Your task to perform on an android device: Go to eBay Image 0: 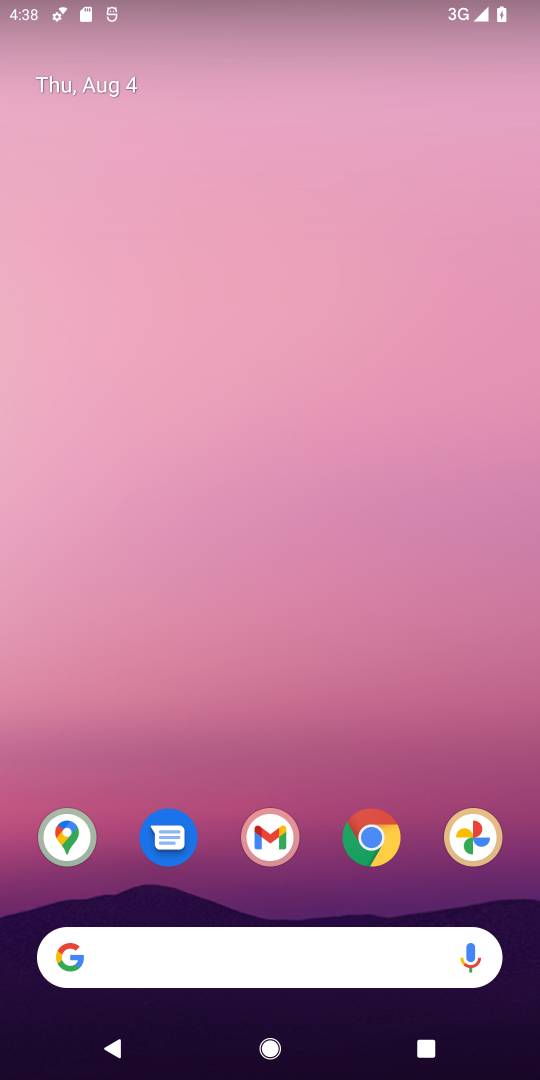
Step 0: click (370, 837)
Your task to perform on an android device: Go to eBay Image 1: 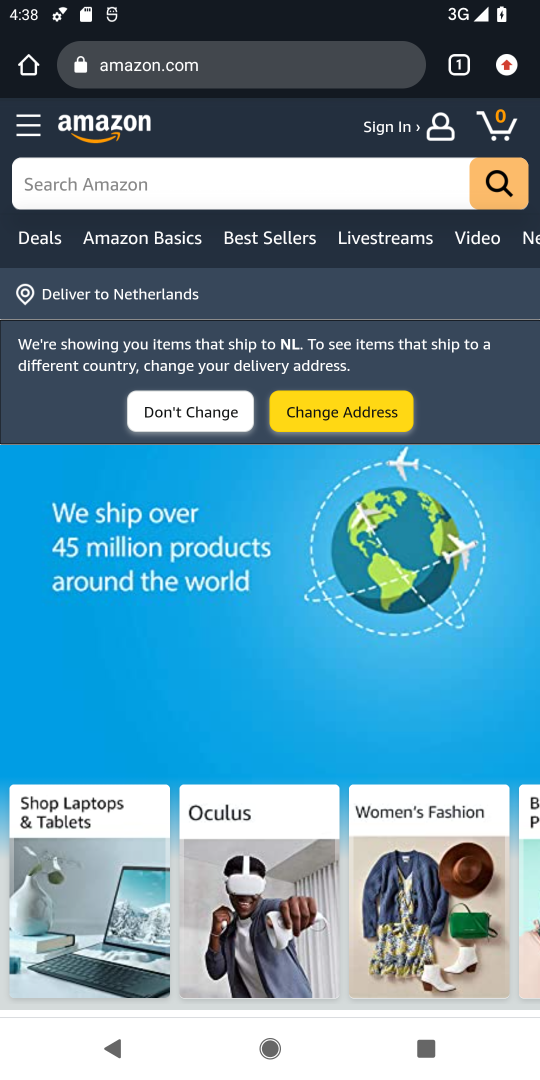
Step 1: click (271, 64)
Your task to perform on an android device: Go to eBay Image 2: 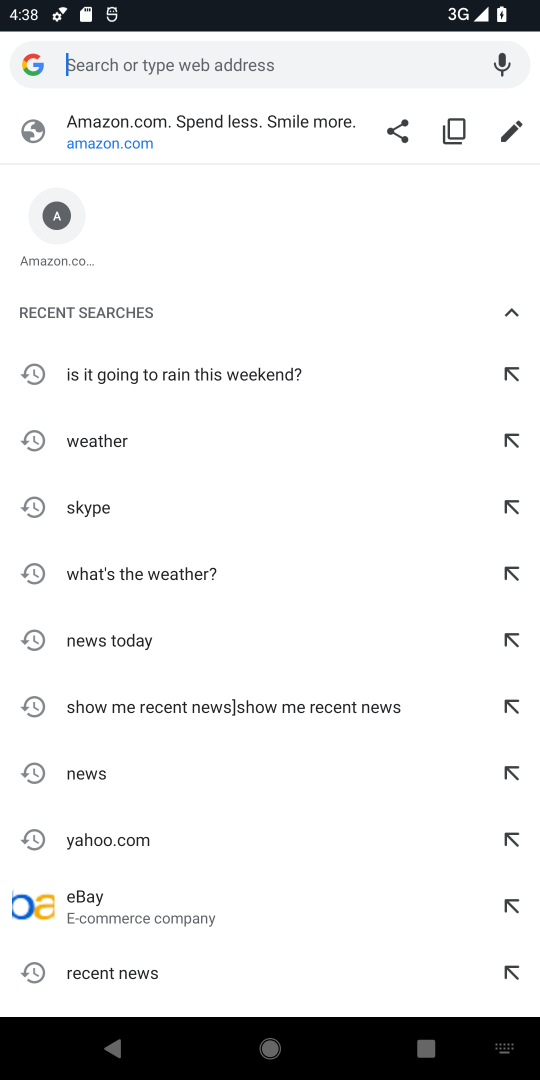
Step 2: type "ebay"
Your task to perform on an android device: Go to eBay Image 3: 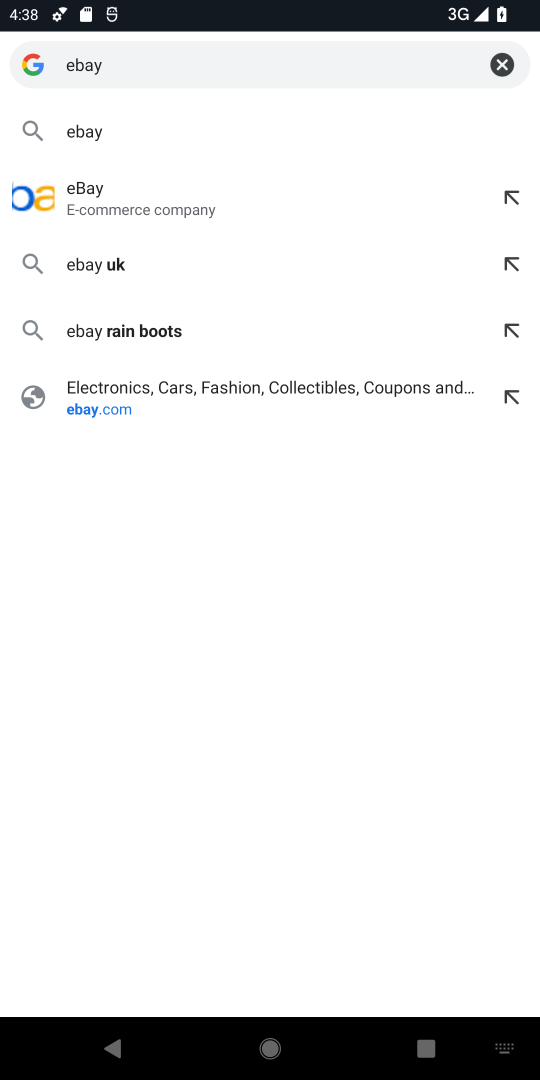
Step 3: click (114, 203)
Your task to perform on an android device: Go to eBay Image 4: 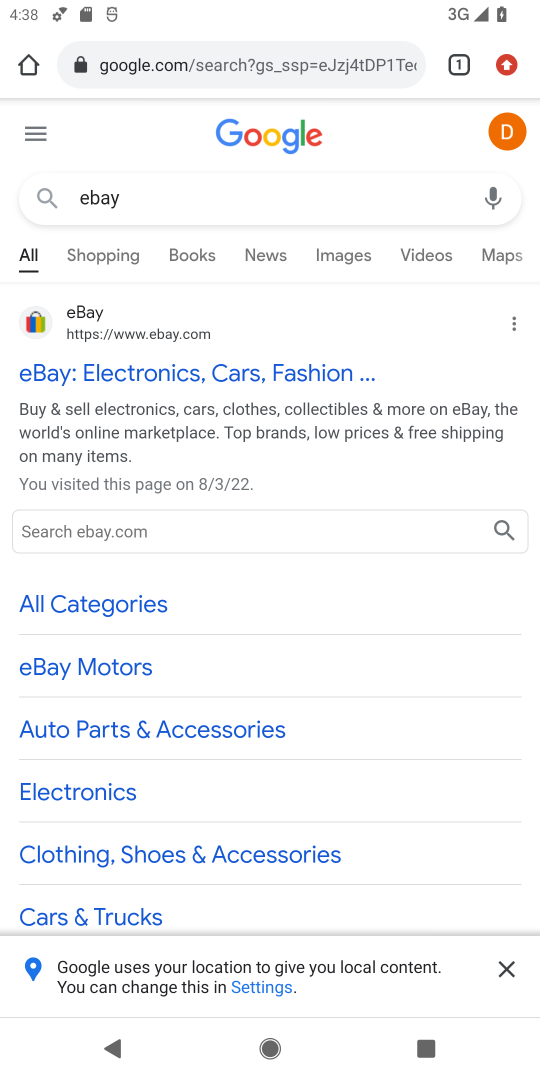
Step 4: click (162, 375)
Your task to perform on an android device: Go to eBay Image 5: 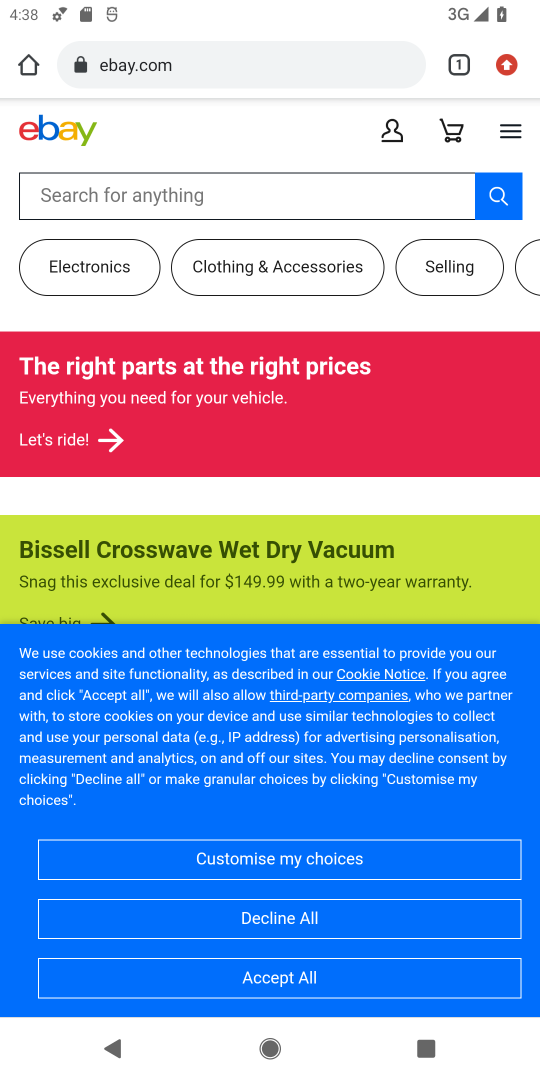
Step 5: task complete